Your task to perform on an android device: Open location settings Image 0: 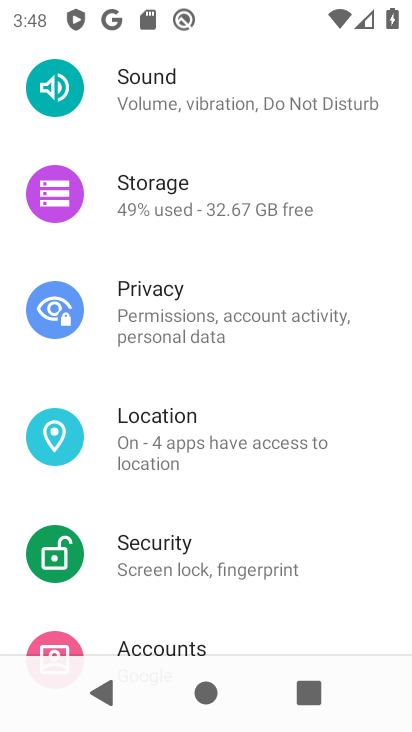
Step 0: press home button
Your task to perform on an android device: Open location settings Image 1: 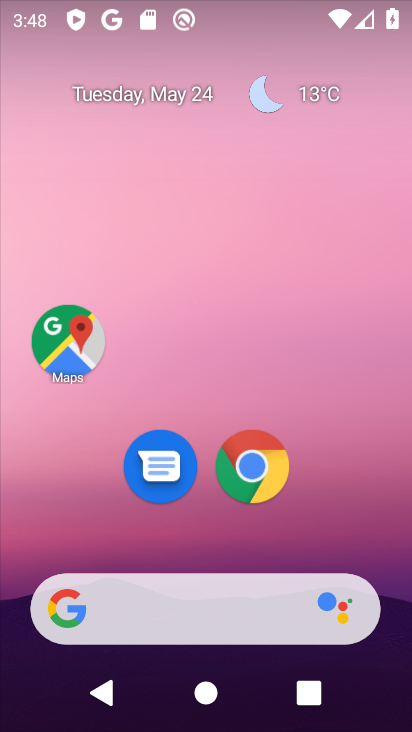
Step 1: drag from (325, 504) to (243, 32)
Your task to perform on an android device: Open location settings Image 2: 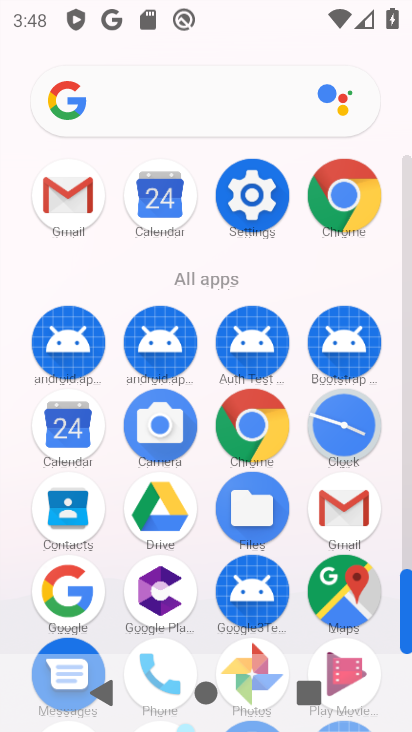
Step 2: click (260, 193)
Your task to perform on an android device: Open location settings Image 3: 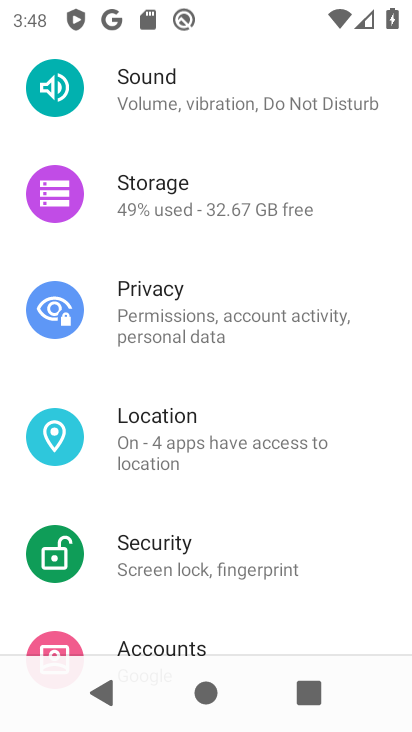
Step 3: click (241, 431)
Your task to perform on an android device: Open location settings Image 4: 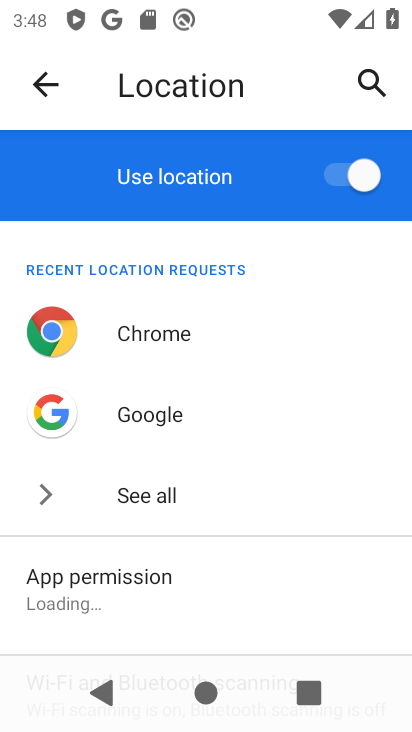
Step 4: drag from (257, 570) to (283, 106)
Your task to perform on an android device: Open location settings Image 5: 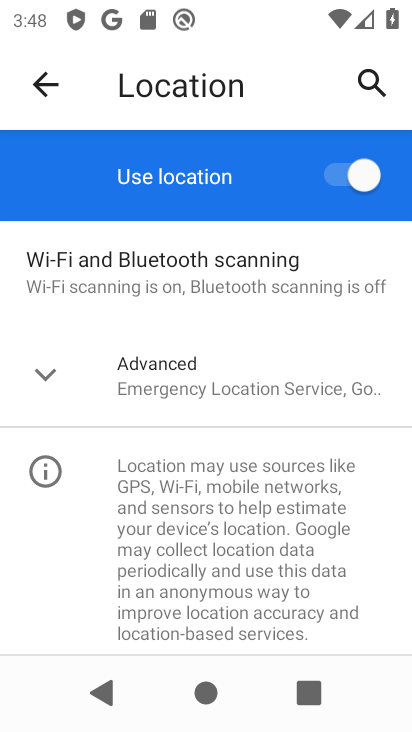
Step 5: click (237, 406)
Your task to perform on an android device: Open location settings Image 6: 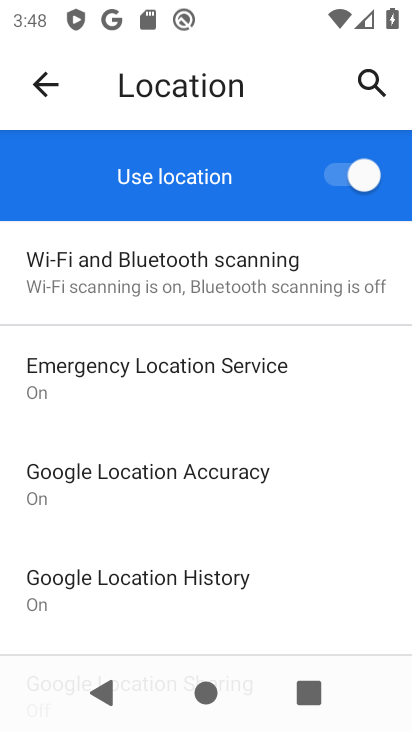
Step 6: task complete